Your task to perform on an android device: turn on showing notifications on the lock screen Image 0: 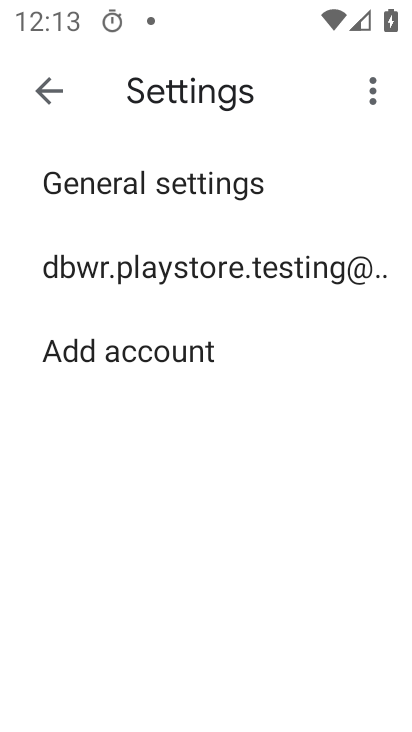
Step 0: press home button
Your task to perform on an android device: turn on showing notifications on the lock screen Image 1: 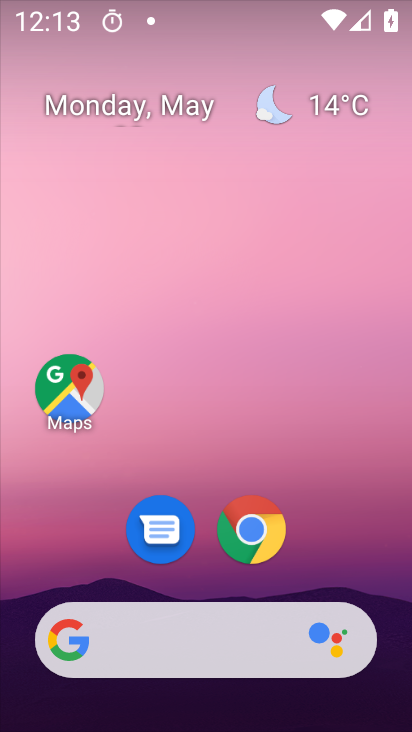
Step 1: drag from (368, 560) to (370, 220)
Your task to perform on an android device: turn on showing notifications on the lock screen Image 2: 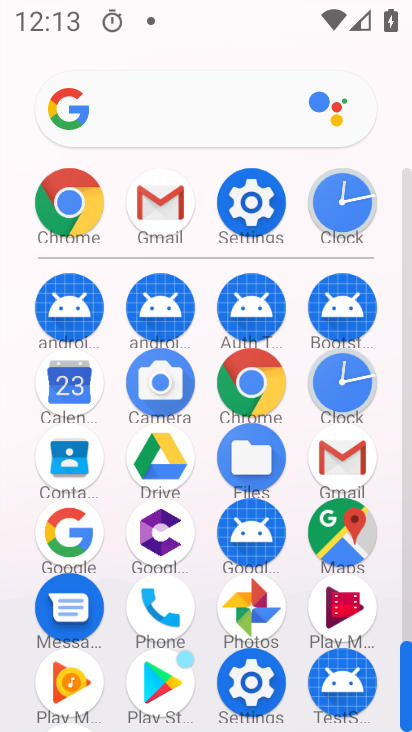
Step 2: click (268, 229)
Your task to perform on an android device: turn on showing notifications on the lock screen Image 3: 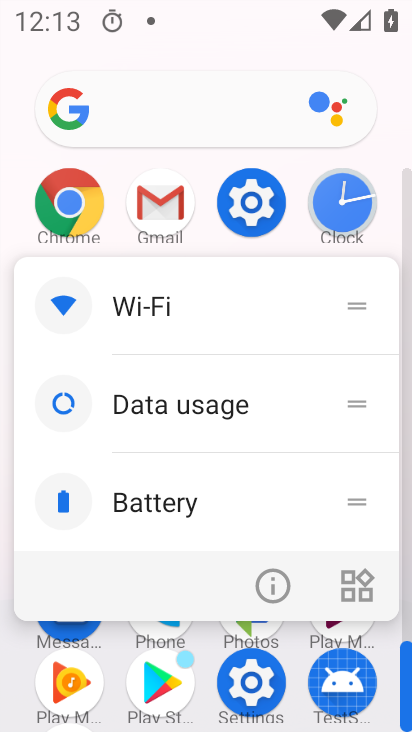
Step 3: click (268, 229)
Your task to perform on an android device: turn on showing notifications on the lock screen Image 4: 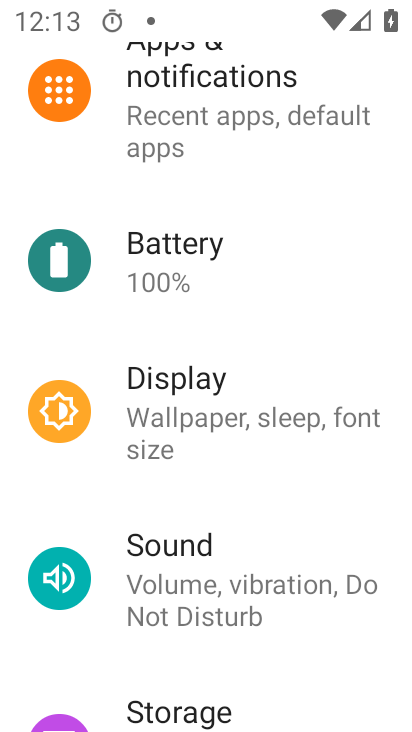
Step 4: drag from (379, 497) to (375, 403)
Your task to perform on an android device: turn on showing notifications on the lock screen Image 5: 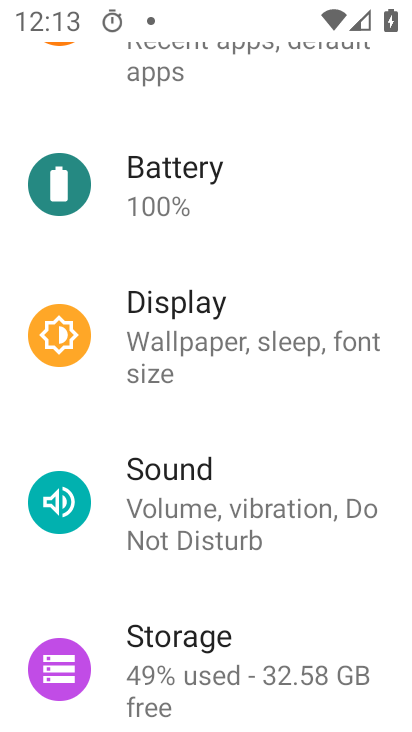
Step 5: drag from (384, 570) to (380, 457)
Your task to perform on an android device: turn on showing notifications on the lock screen Image 6: 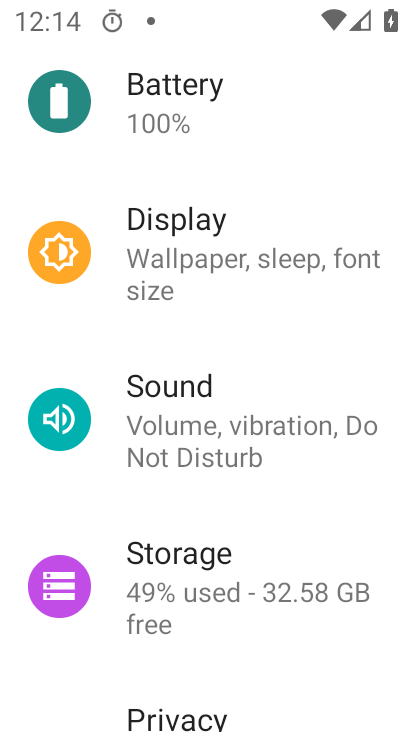
Step 6: drag from (378, 557) to (363, 425)
Your task to perform on an android device: turn on showing notifications on the lock screen Image 7: 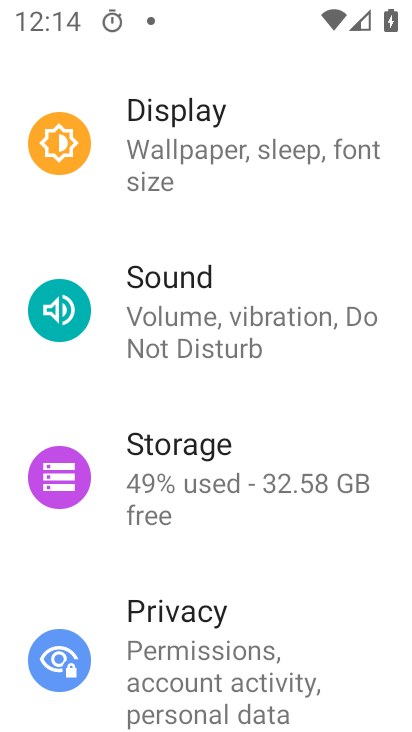
Step 7: drag from (350, 587) to (342, 452)
Your task to perform on an android device: turn on showing notifications on the lock screen Image 8: 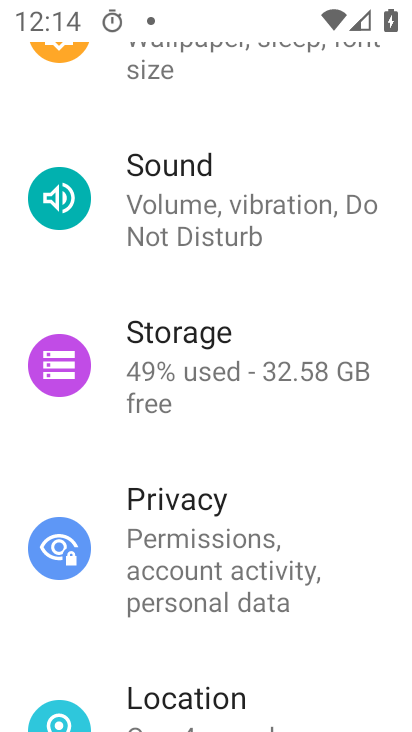
Step 8: drag from (352, 586) to (348, 489)
Your task to perform on an android device: turn on showing notifications on the lock screen Image 9: 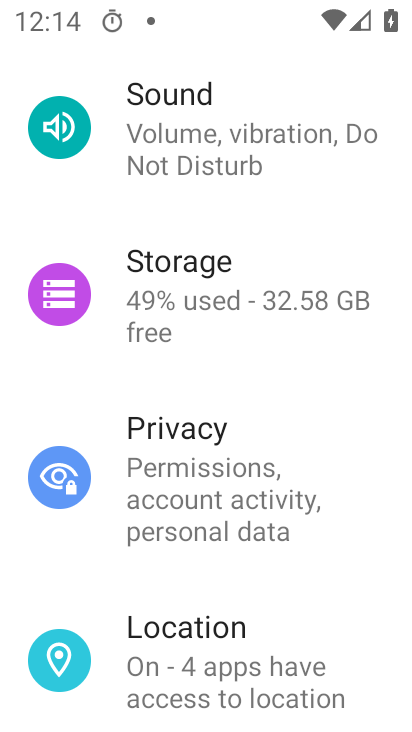
Step 9: drag from (348, 592) to (355, 468)
Your task to perform on an android device: turn on showing notifications on the lock screen Image 10: 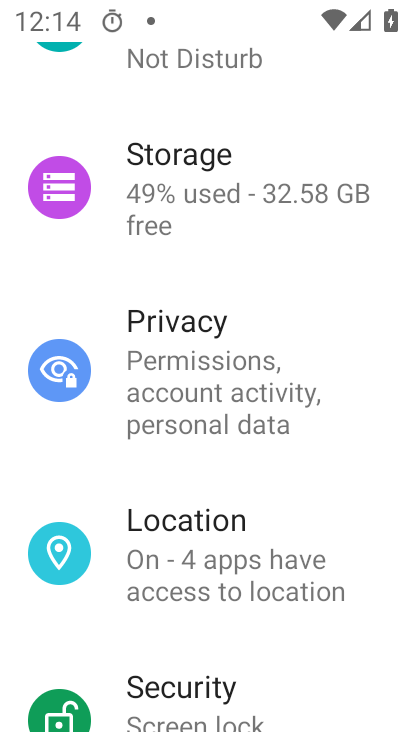
Step 10: drag from (339, 475) to (351, 392)
Your task to perform on an android device: turn on showing notifications on the lock screen Image 11: 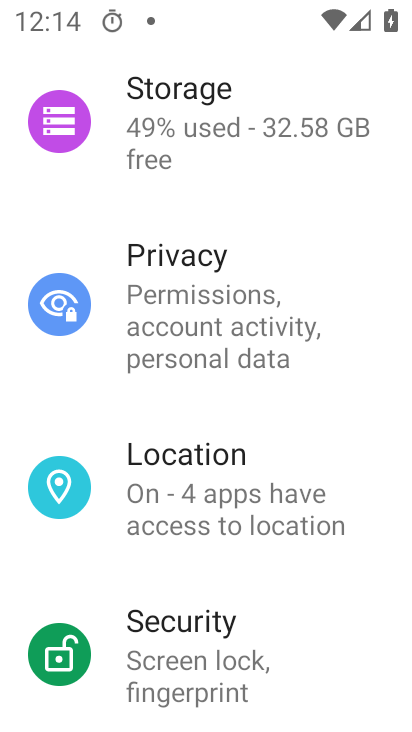
Step 11: drag from (355, 494) to (362, 403)
Your task to perform on an android device: turn on showing notifications on the lock screen Image 12: 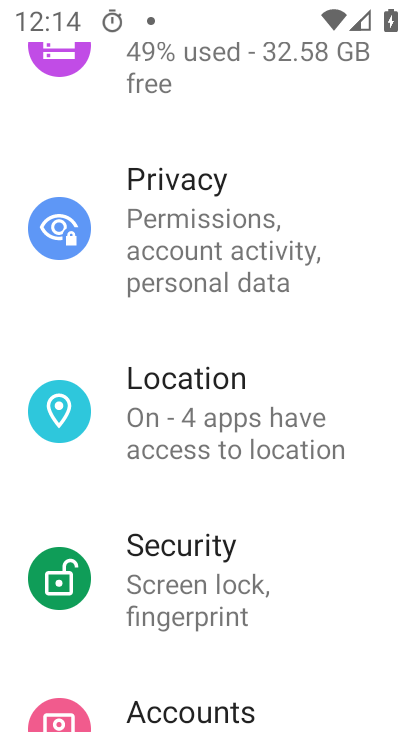
Step 12: drag from (346, 482) to (346, 384)
Your task to perform on an android device: turn on showing notifications on the lock screen Image 13: 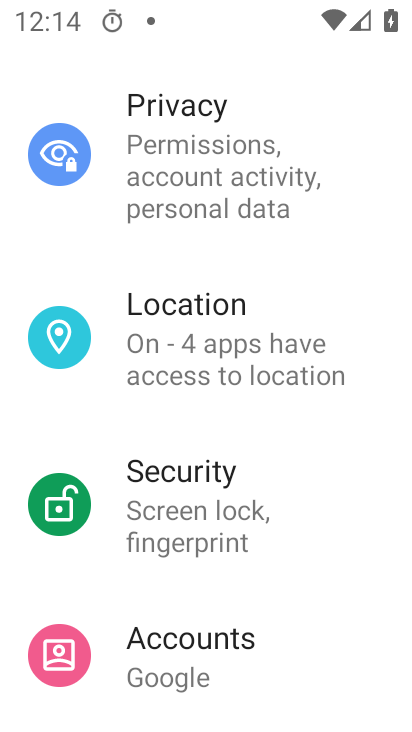
Step 13: drag from (335, 474) to (345, 362)
Your task to perform on an android device: turn on showing notifications on the lock screen Image 14: 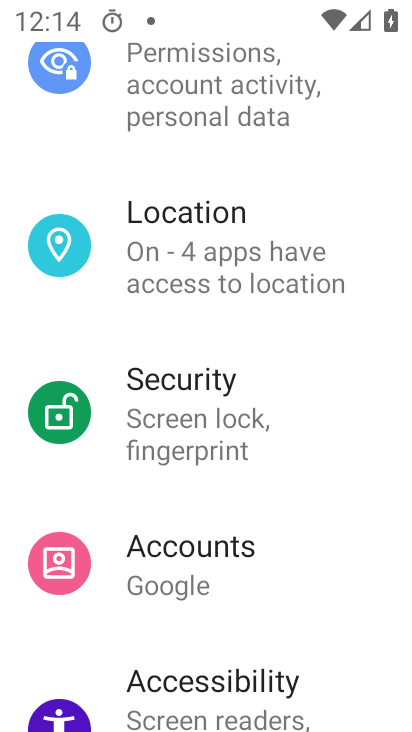
Step 14: drag from (348, 507) to (356, 407)
Your task to perform on an android device: turn on showing notifications on the lock screen Image 15: 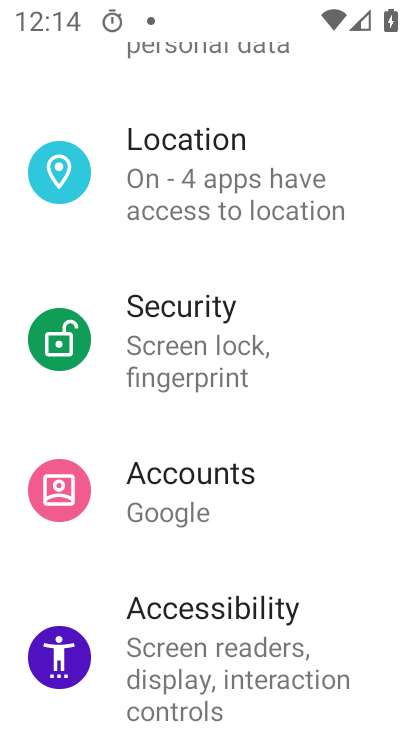
Step 15: drag from (372, 520) to (368, 404)
Your task to perform on an android device: turn on showing notifications on the lock screen Image 16: 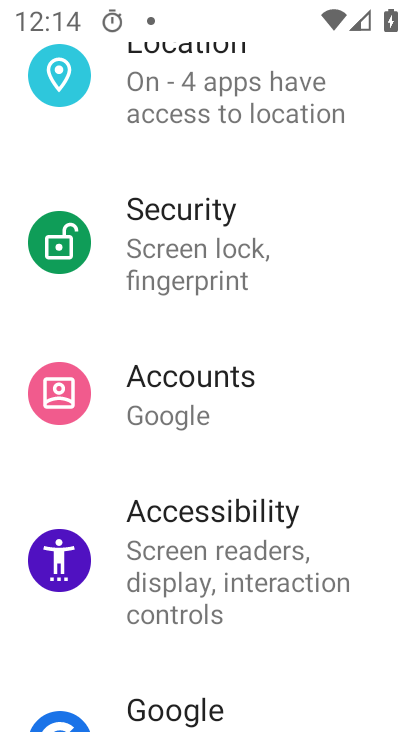
Step 16: drag from (345, 326) to (342, 400)
Your task to perform on an android device: turn on showing notifications on the lock screen Image 17: 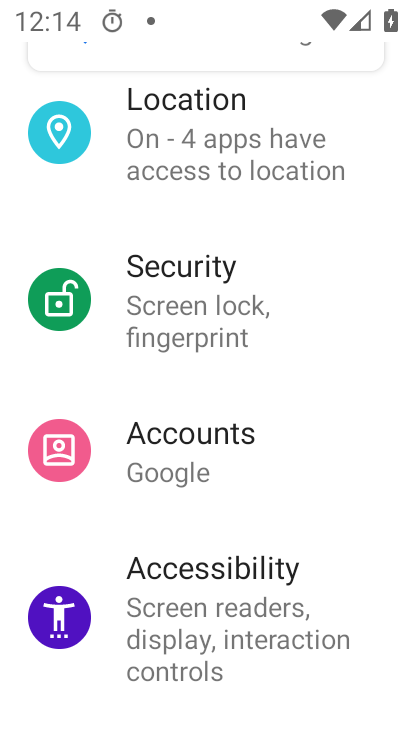
Step 17: drag from (347, 302) to (349, 382)
Your task to perform on an android device: turn on showing notifications on the lock screen Image 18: 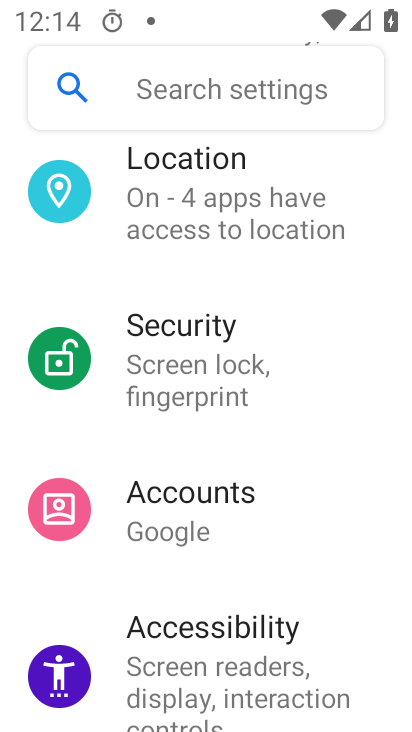
Step 18: drag from (345, 291) to (349, 361)
Your task to perform on an android device: turn on showing notifications on the lock screen Image 19: 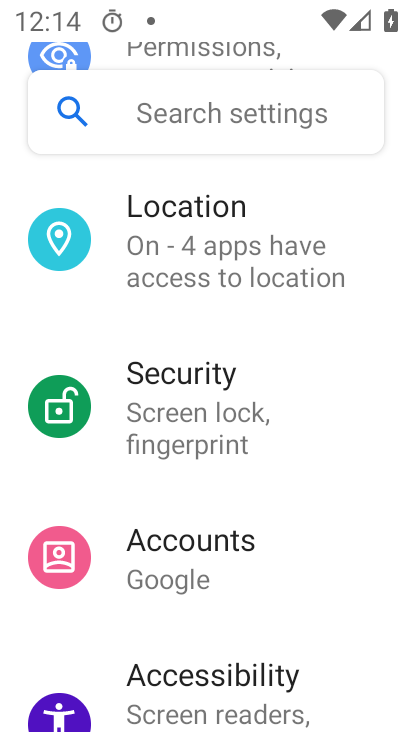
Step 19: drag from (365, 291) to (362, 377)
Your task to perform on an android device: turn on showing notifications on the lock screen Image 20: 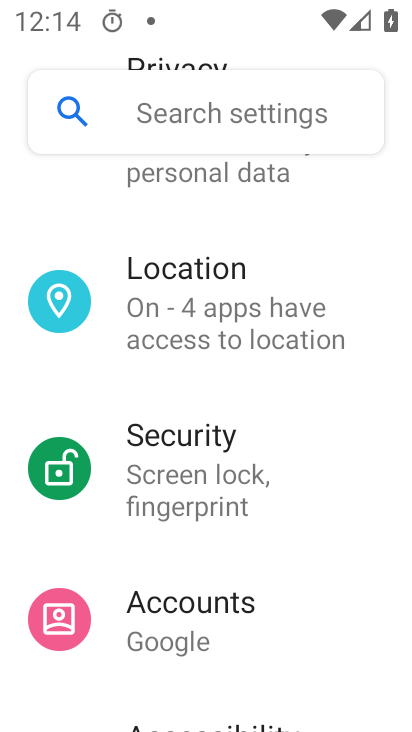
Step 20: drag from (367, 286) to (353, 377)
Your task to perform on an android device: turn on showing notifications on the lock screen Image 21: 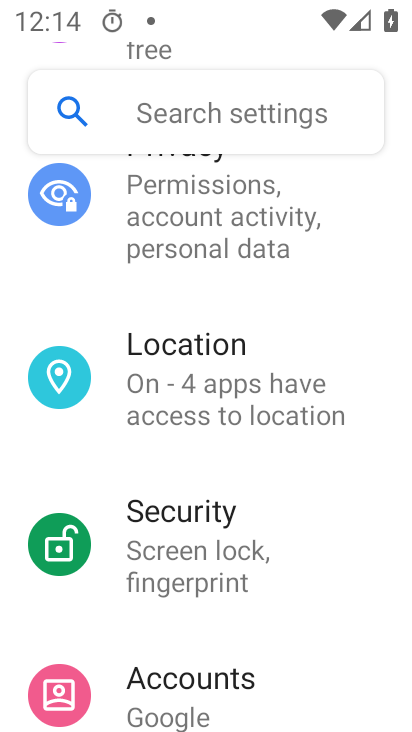
Step 21: drag from (360, 262) to (359, 348)
Your task to perform on an android device: turn on showing notifications on the lock screen Image 22: 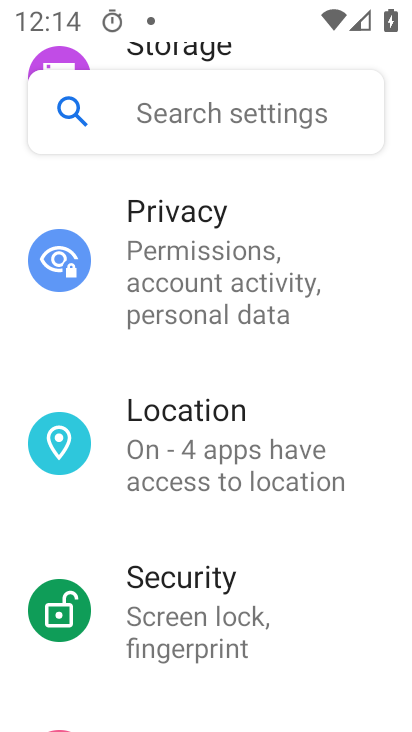
Step 22: drag from (361, 201) to (343, 359)
Your task to perform on an android device: turn on showing notifications on the lock screen Image 23: 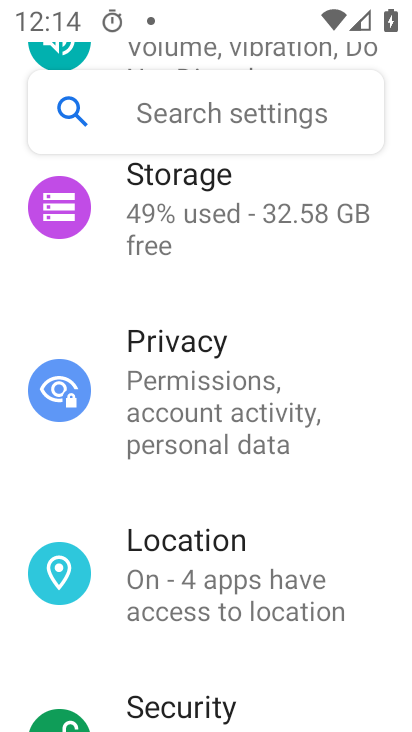
Step 23: drag from (376, 274) to (379, 400)
Your task to perform on an android device: turn on showing notifications on the lock screen Image 24: 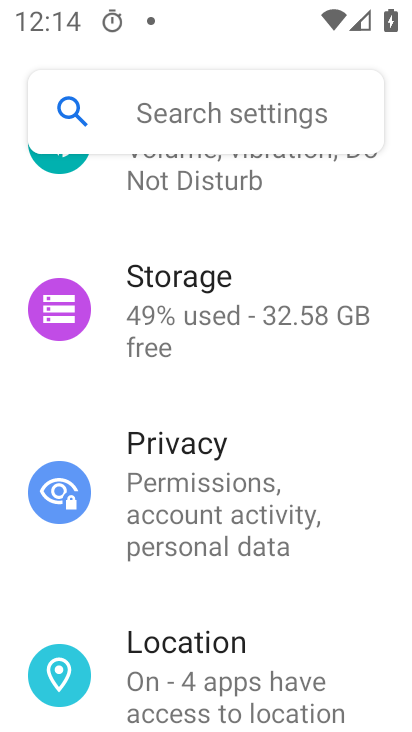
Step 24: drag from (372, 229) to (371, 383)
Your task to perform on an android device: turn on showing notifications on the lock screen Image 25: 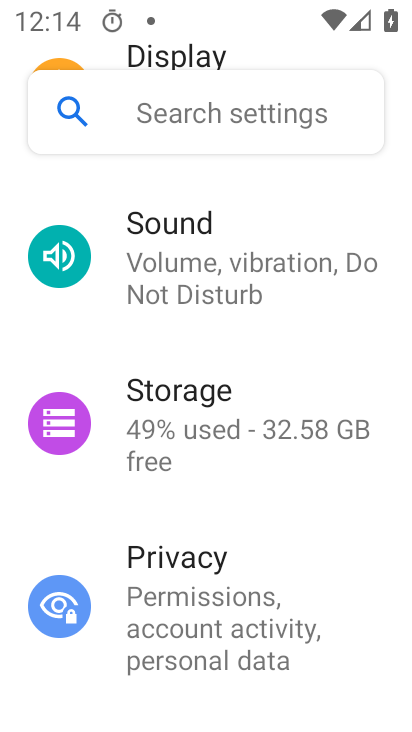
Step 25: drag from (363, 230) to (362, 382)
Your task to perform on an android device: turn on showing notifications on the lock screen Image 26: 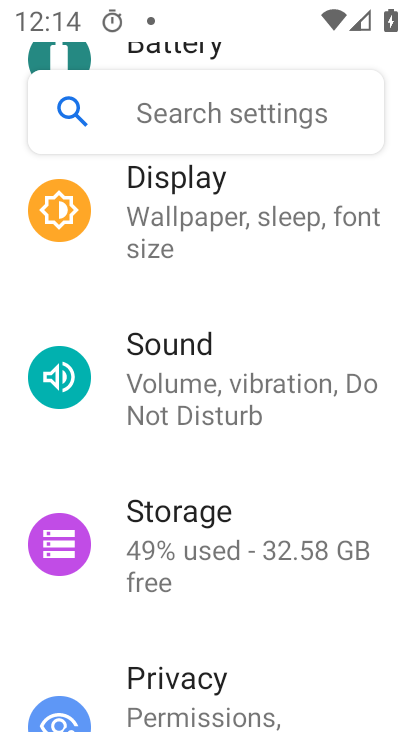
Step 26: drag from (368, 197) to (360, 339)
Your task to perform on an android device: turn on showing notifications on the lock screen Image 27: 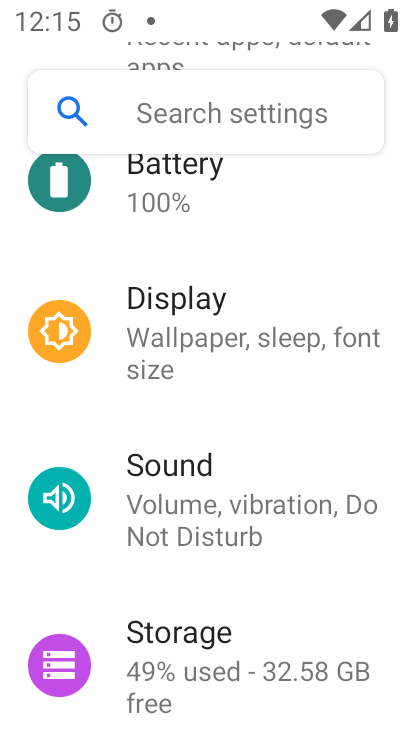
Step 27: drag from (360, 235) to (335, 380)
Your task to perform on an android device: turn on showing notifications on the lock screen Image 28: 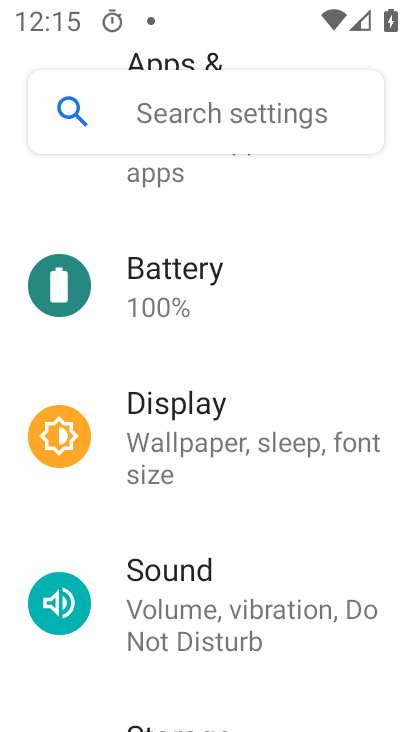
Step 28: drag from (333, 215) to (324, 344)
Your task to perform on an android device: turn on showing notifications on the lock screen Image 29: 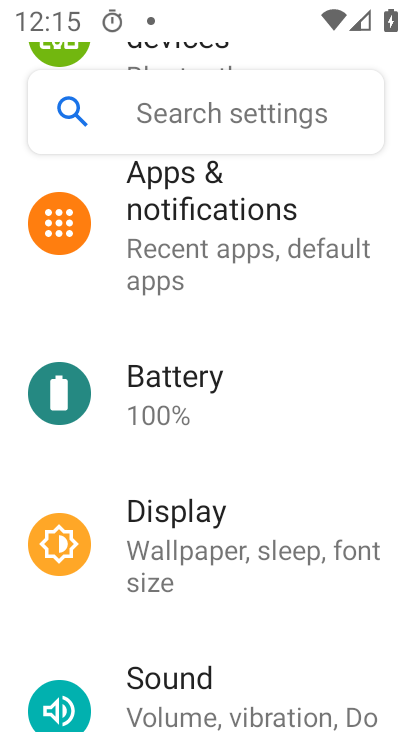
Step 29: click (297, 258)
Your task to perform on an android device: turn on showing notifications on the lock screen Image 30: 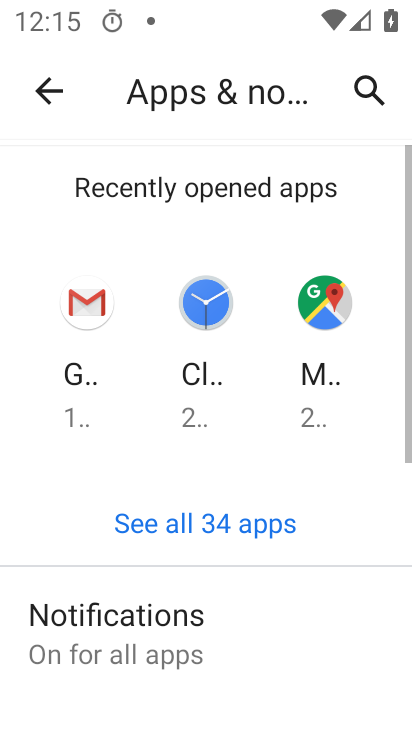
Step 30: drag from (314, 578) to (353, 425)
Your task to perform on an android device: turn on showing notifications on the lock screen Image 31: 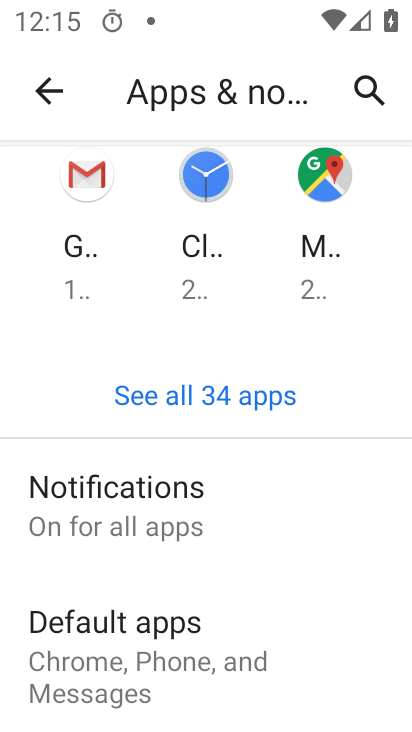
Step 31: click (228, 522)
Your task to perform on an android device: turn on showing notifications on the lock screen Image 32: 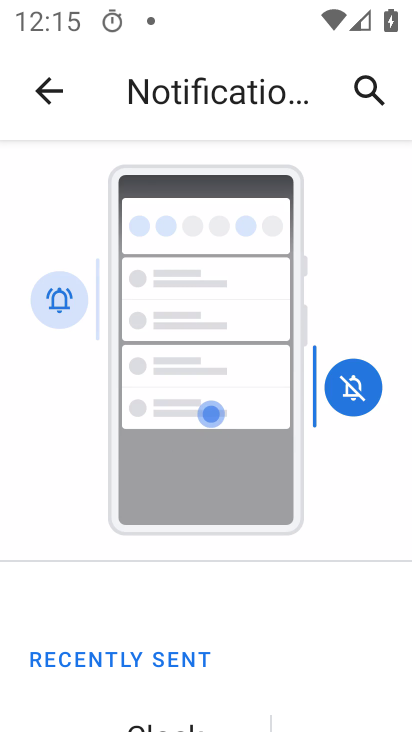
Step 32: drag from (292, 565) to (320, 423)
Your task to perform on an android device: turn on showing notifications on the lock screen Image 33: 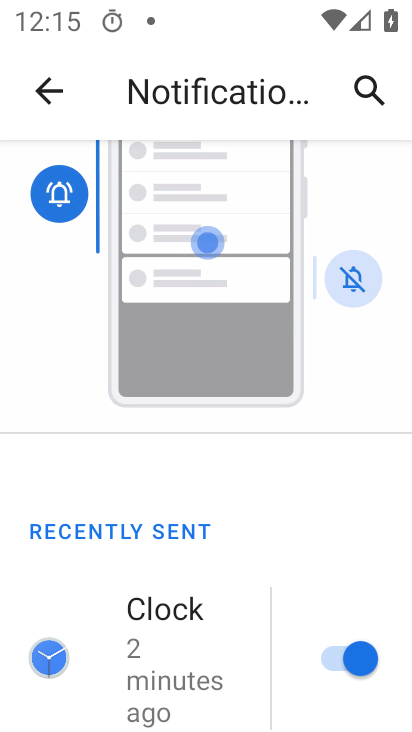
Step 33: drag from (304, 576) to (320, 454)
Your task to perform on an android device: turn on showing notifications on the lock screen Image 34: 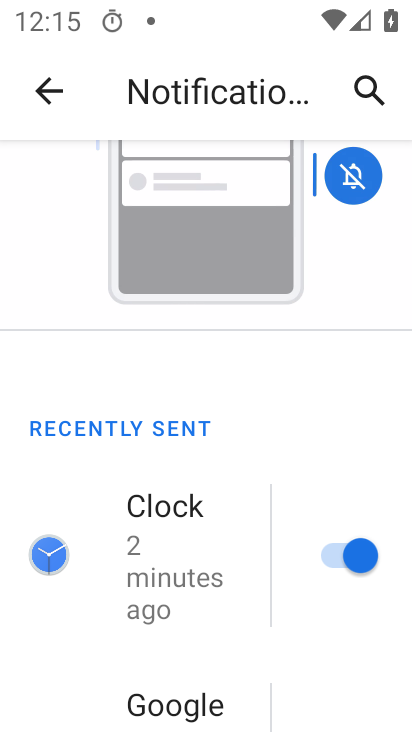
Step 34: drag from (291, 599) to (292, 471)
Your task to perform on an android device: turn on showing notifications on the lock screen Image 35: 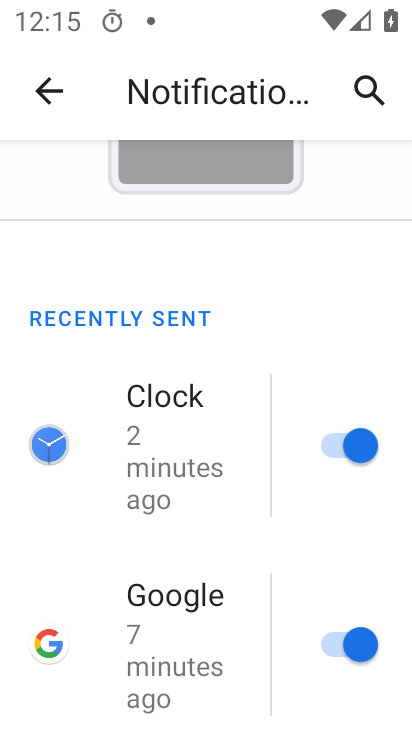
Step 35: drag from (276, 628) to (274, 506)
Your task to perform on an android device: turn on showing notifications on the lock screen Image 36: 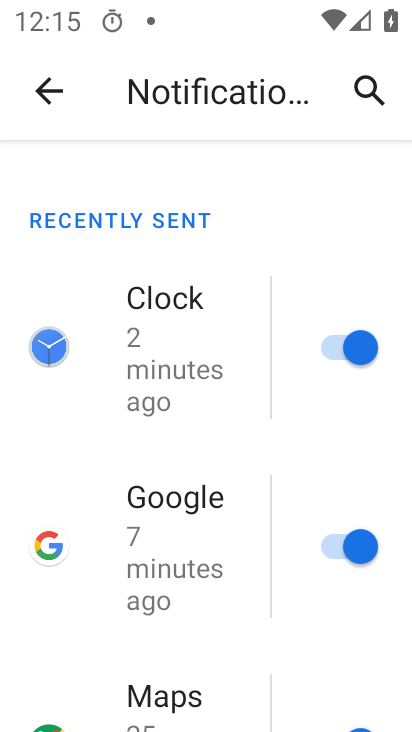
Step 36: drag from (270, 644) to (276, 521)
Your task to perform on an android device: turn on showing notifications on the lock screen Image 37: 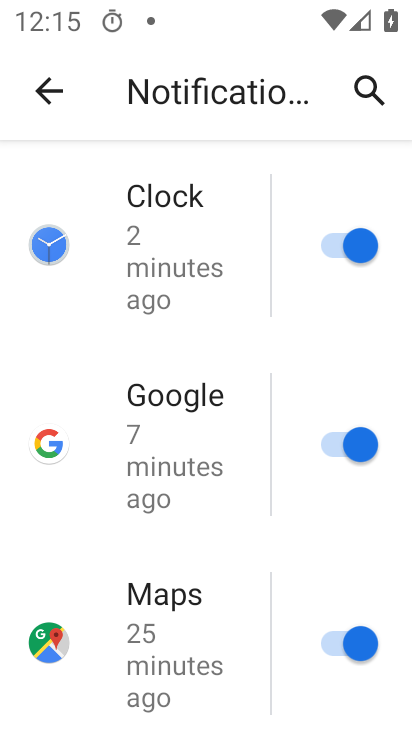
Step 37: drag from (242, 661) to (239, 524)
Your task to perform on an android device: turn on showing notifications on the lock screen Image 38: 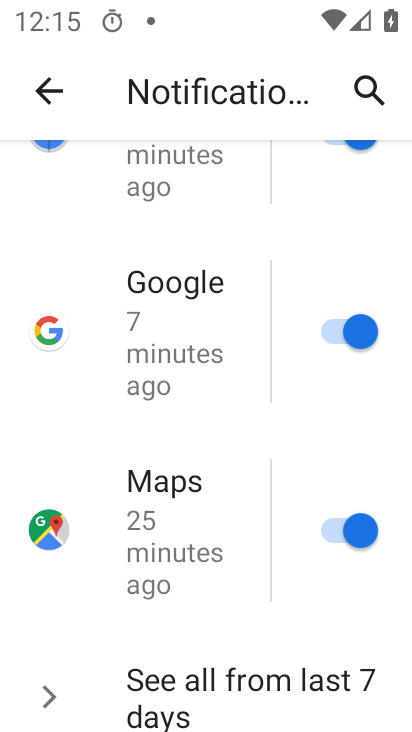
Step 38: drag from (242, 651) to (233, 474)
Your task to perform on an android device: turn on showing notifications on the lock screen Image 39: 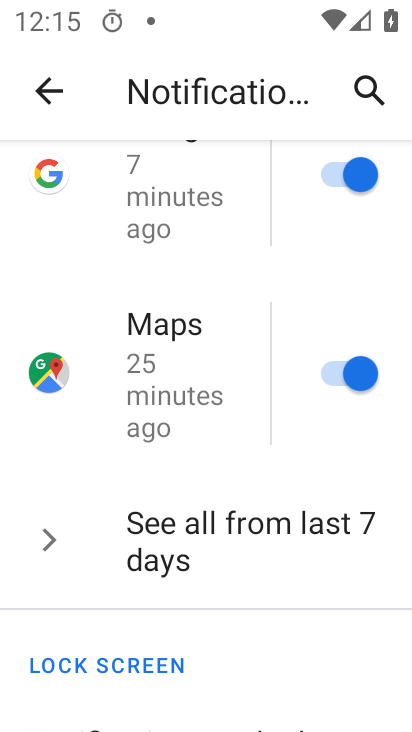
Step 39: drag from (254, 662) to (262, 489)
Your task to perform on an android device: turn on showing notifications on the lock screen Image 40: 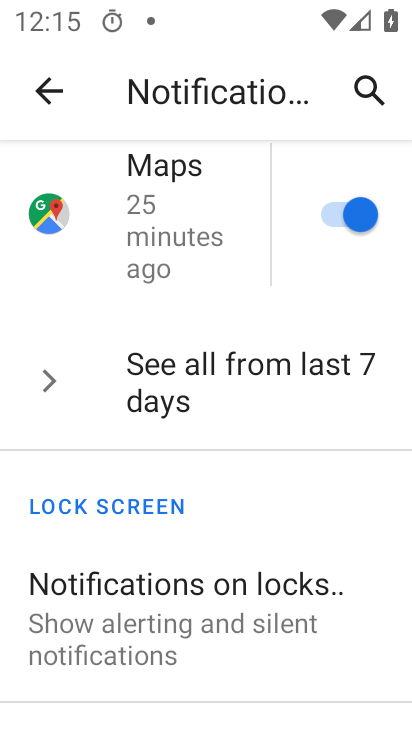
Step 40: drag from (268, 680) to (267, 486)
Your task to perform on an android device: turn on showing notifications on the lock screen Image 41: 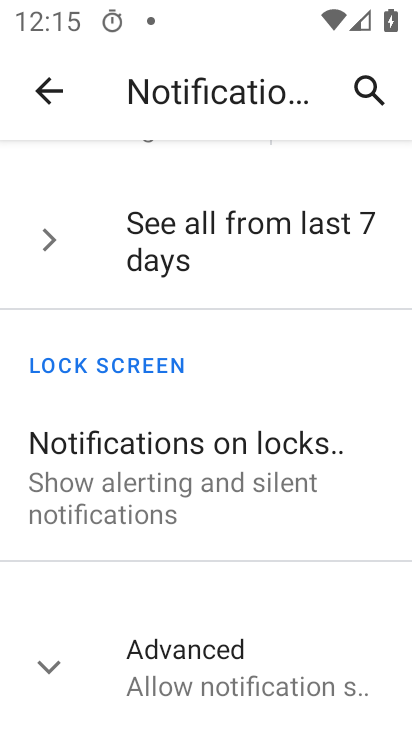
Step 41: click (259, 470)
Your task to perform on an android device: turn on showing notifications on the lock screen Image 42: 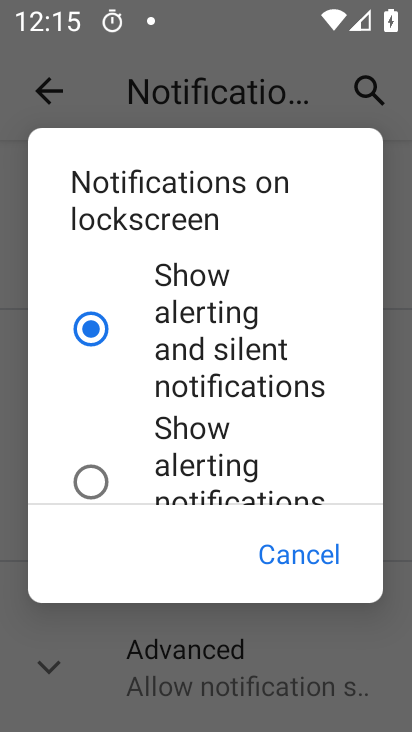
Step 42: task complete